Your task to perform on an android device: change alarm snooze length Image 0: 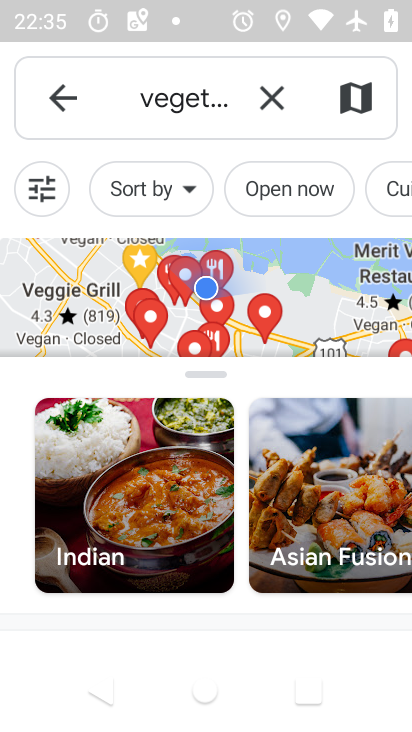
Step 0: press home button
Your task to perform on an android device: change alarm snooze length Image 1: 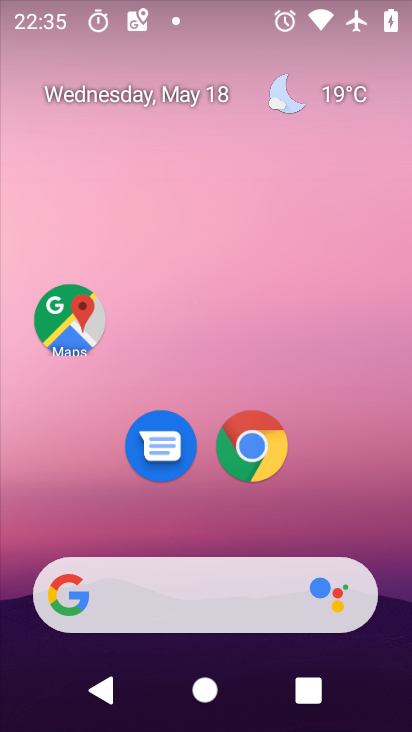
Step 1: drag from (171, 616) to (327, 178)
Your task to perform on an android device: change alarm snooze length Image 2: 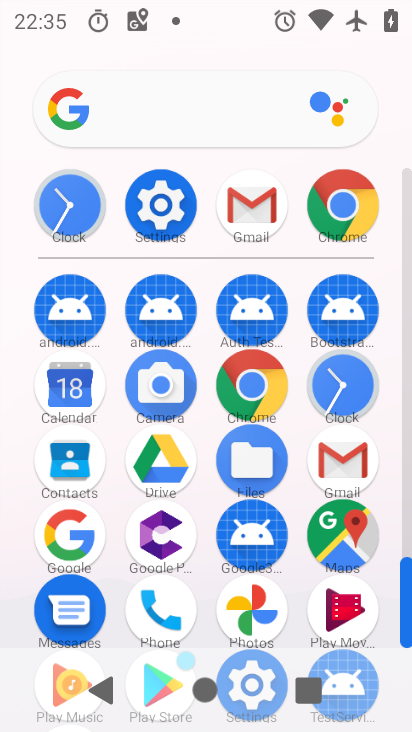
Step 2: click (349, 370)
Your task to perform on an android device: change alarm snooze length Image 3: 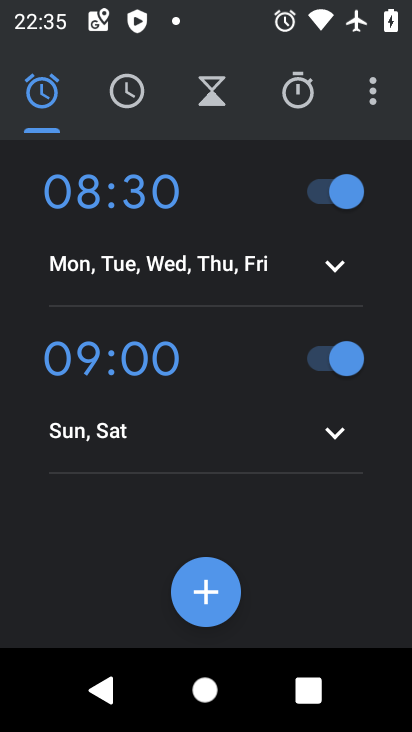
Step 3: click (380, 99)
Your task to perform on an android device: change alarm snooze length Image 4: 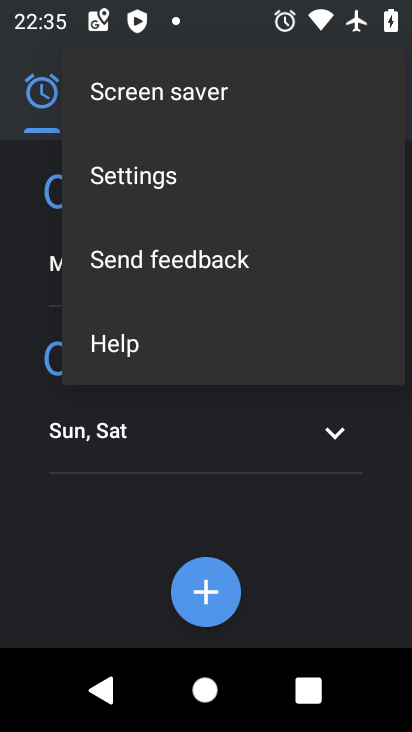
Step 4: click (200, 180)
Your task to perform on an android device: change alarm snooze length Image 5: 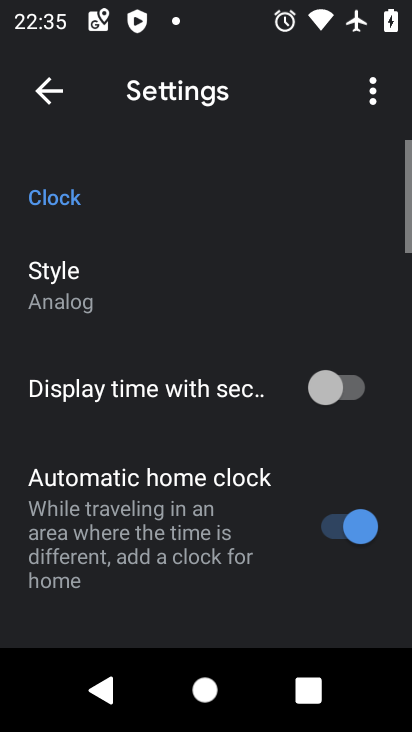
Step 5: drag from (170, 585) to (266, 198)
Your task to perform on an android device: change alarm snooze length Image 6: 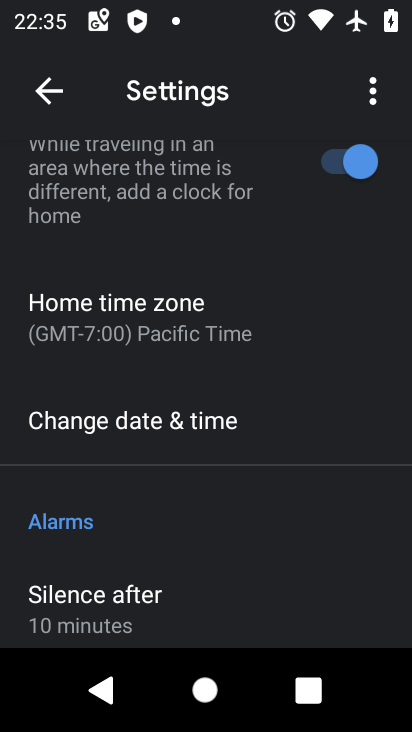
Step 6: drag from (206, 546) to (292, 150)
Your task to perform on an android device: change alarm snooze length Image 7: 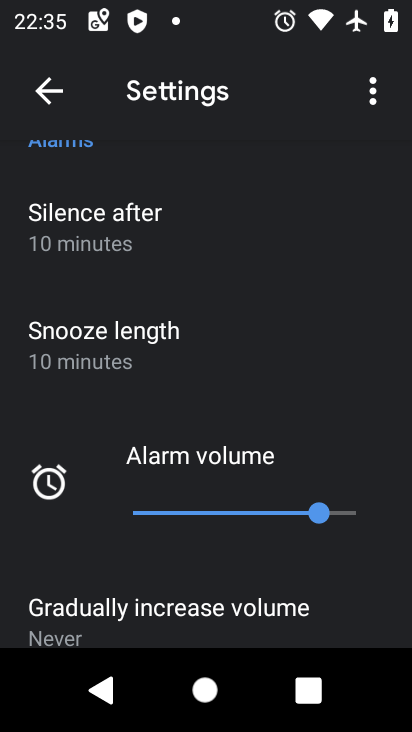
Step 7: click (100, 352)
Your task to perform on an android device: change alarm snooze length Image 8: 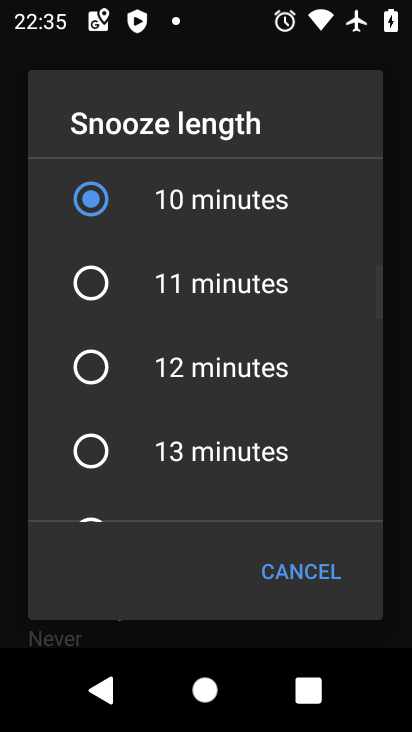
Step 8: click (98, 447)
Your task to perform on an android device: change alarm snooze length Image 9: 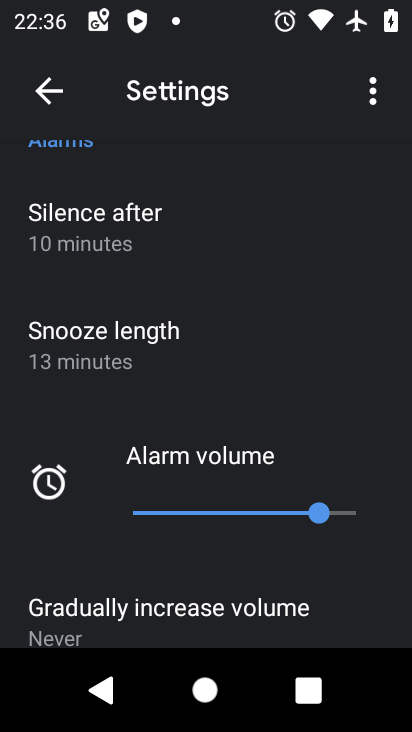
Step 9: task complete